Your task to perform on an android device: manage bookmarks in the chrome app Image 0: 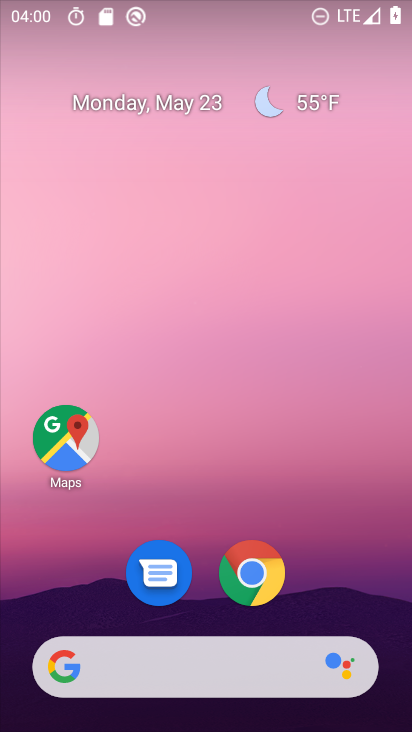
Step 0: click (257, 580)
Your task to perform on an android device: manage bookmarks in the chrome app Image 1: 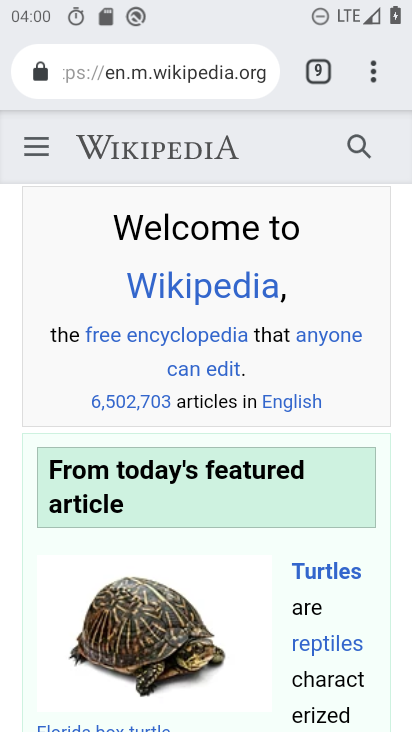
Step 1: click (379, 74)
Your task to perform on an android device: manage bookmarks in the chrome app Image 2: 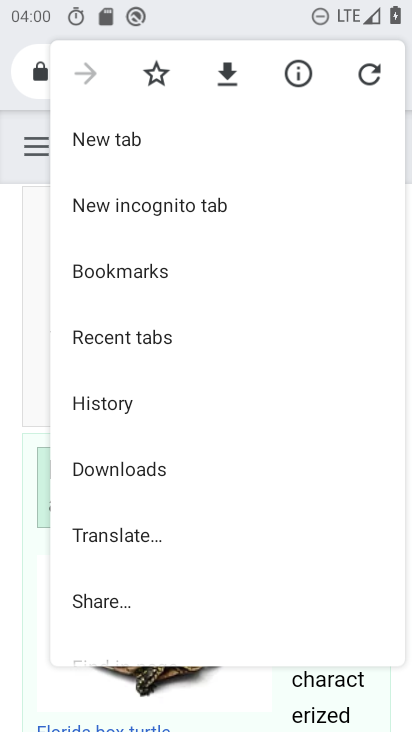
Step 2: click (95, 268)
Your task to perform on an android device: manage bookmarks in the chrome app Image 3: 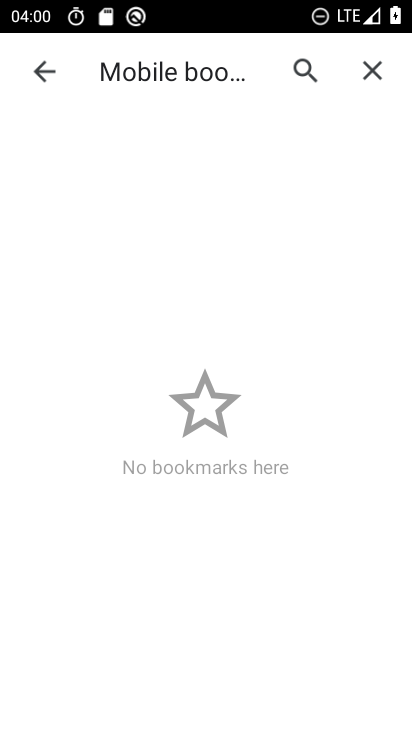
Step 3: task complete